Your task to perform on an android device: Clear the cart on newegg.com. Image 0: 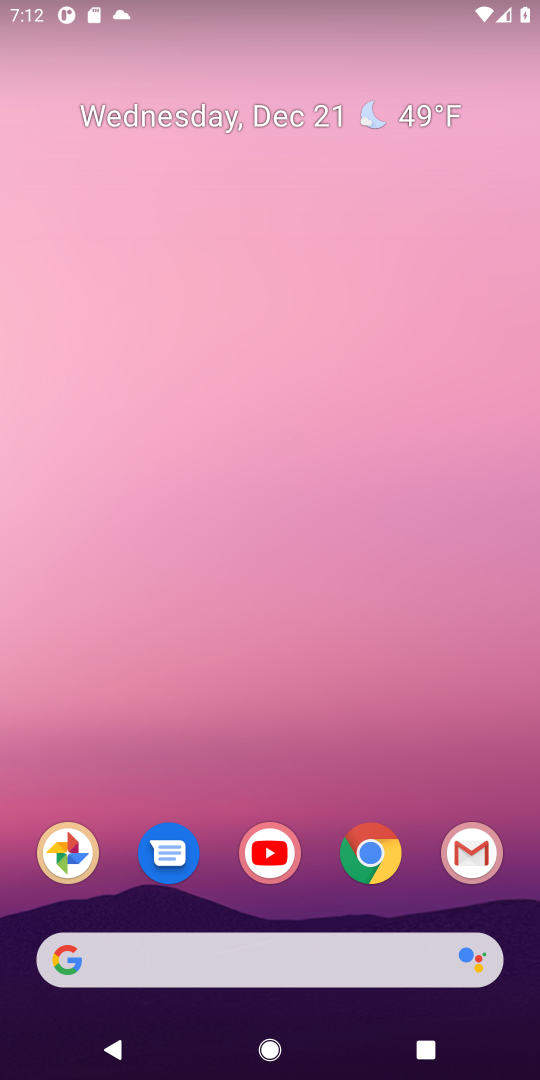
Step 0: click (372, 845)
Your task to perform on an android device: Clear the cart on newegg.com. Image 1: 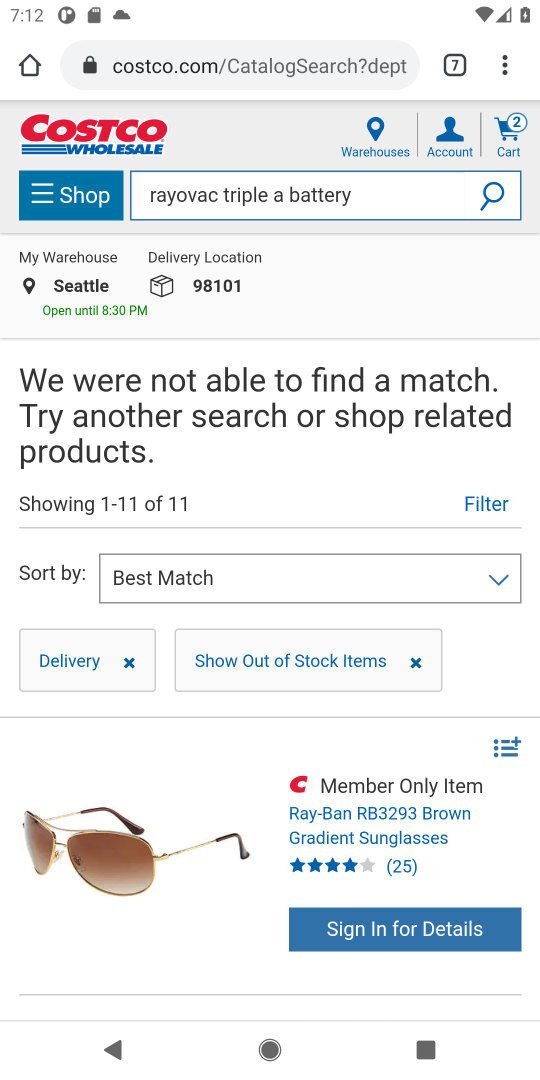
Step 1: click (455, 59)
Your task to perform on an android device: Clear the cart on newegg.com. Image 2: 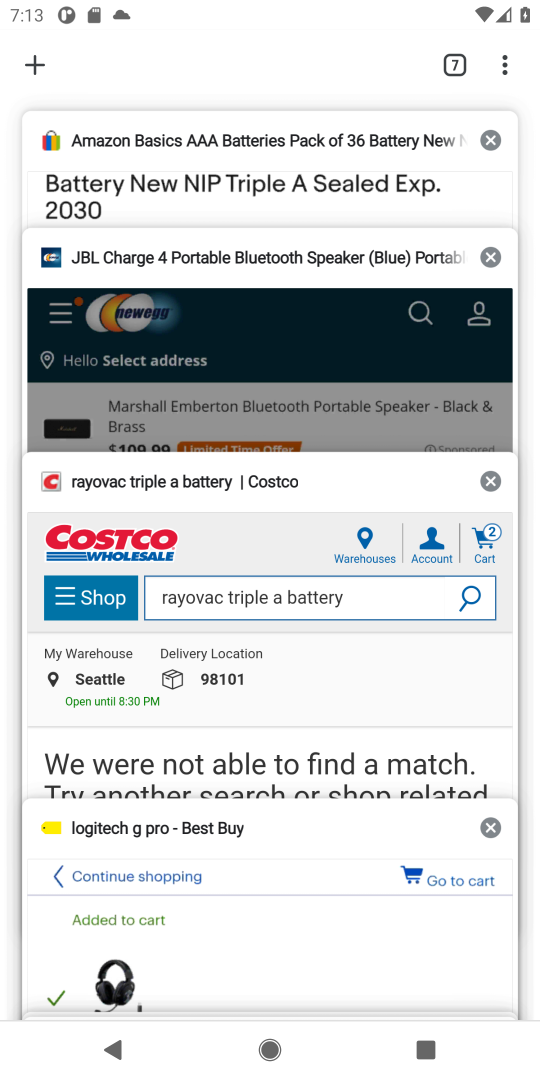
Step 2: click (147, 327)
Your task to perform on an android device: Clear the cart on newegg.com. Image 3: 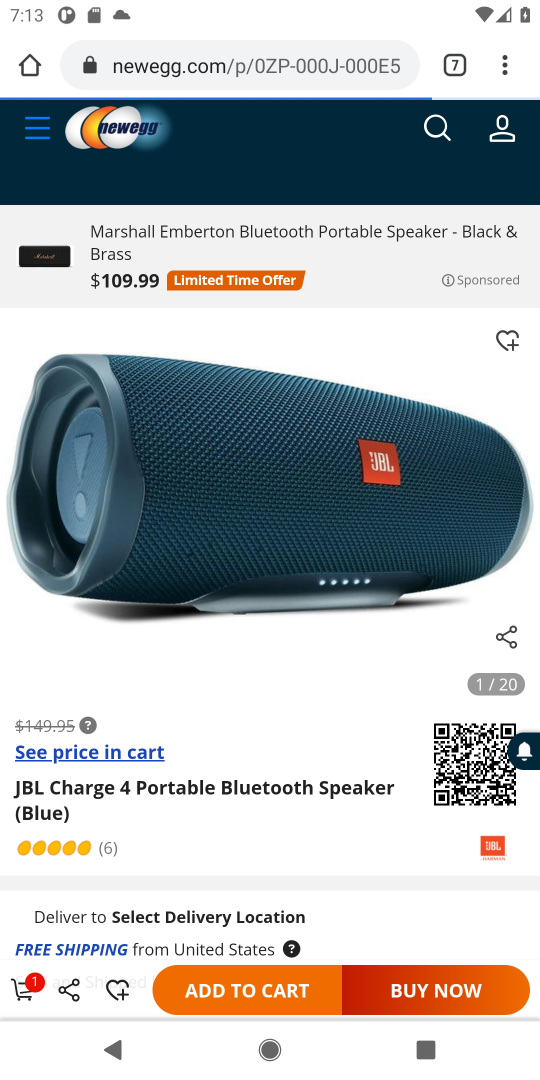
Step 3: click (29, 983)
Your task to perform on an android device: Clear the cart on newegg.com. Image 4: 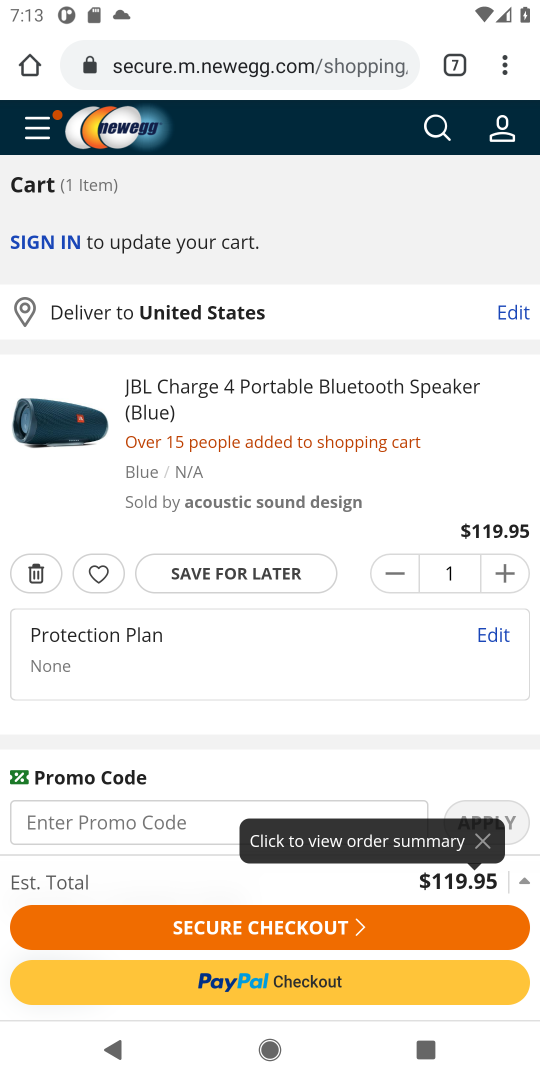
Step 4: click (32, 568)
Your task to perform on an android device: Clear the cart on newegg.com. Image 5: 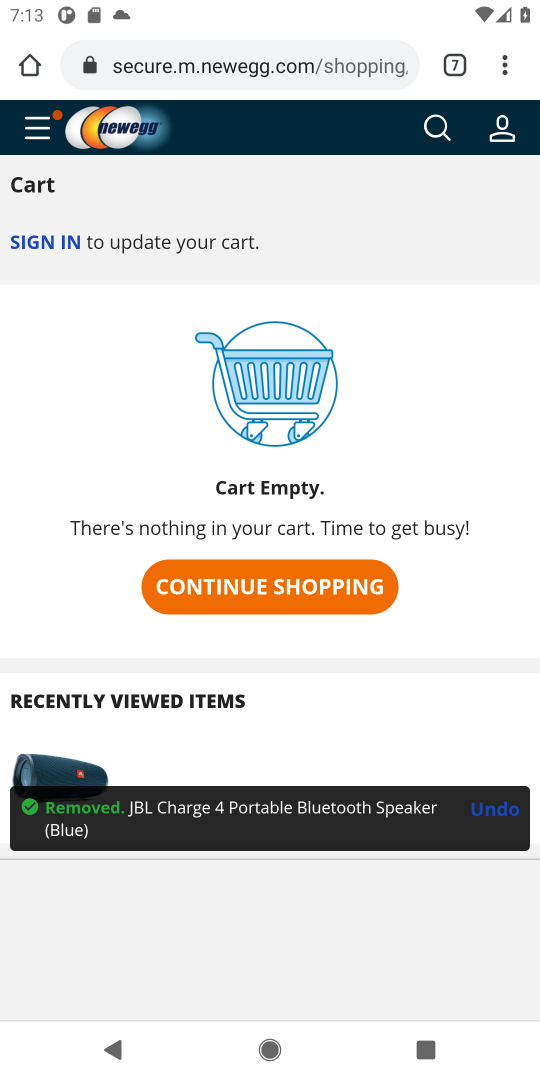
Step 5: task complete